Your task to perform on an android device: Search for Italian restaurants on Maps Image 0: 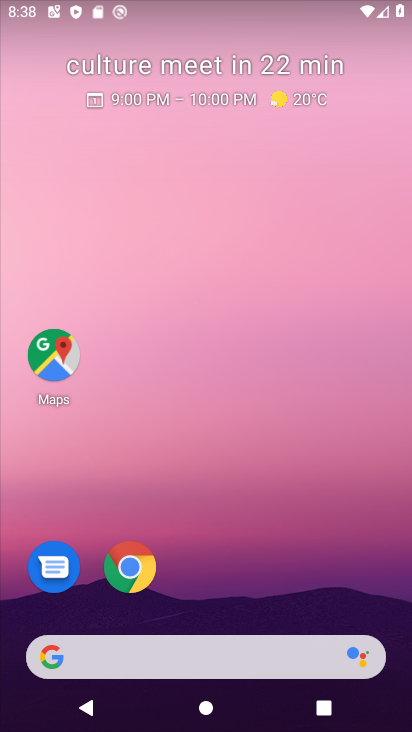
Step 0: click (48, 354)
Your task to perform on an android device: Search for Italian restaurants on Maps Image 1: 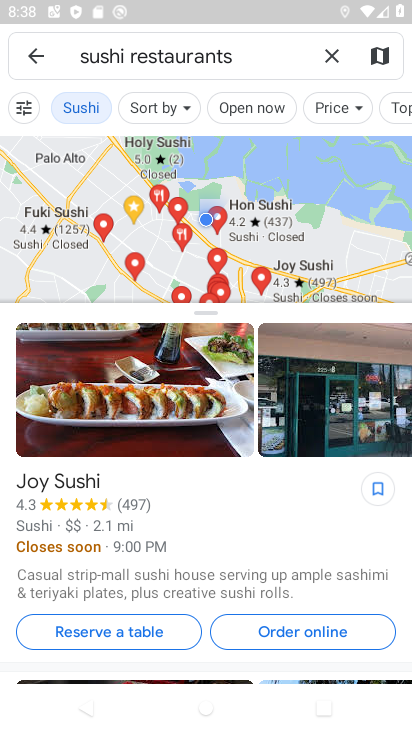
Step 1: click (334, 48)
Your task to perform on an android device: Search for Italian restaurants on Maps Image 2: 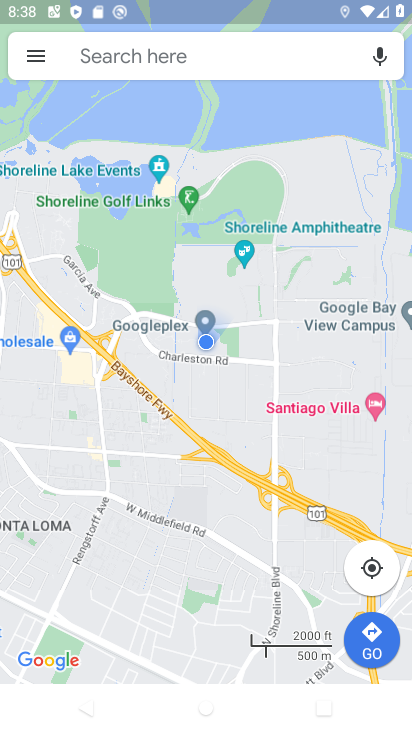
Step 2: click (137, 46)
Your task to perform on an android device: Search for Italian restaurants on Maps Image 3: 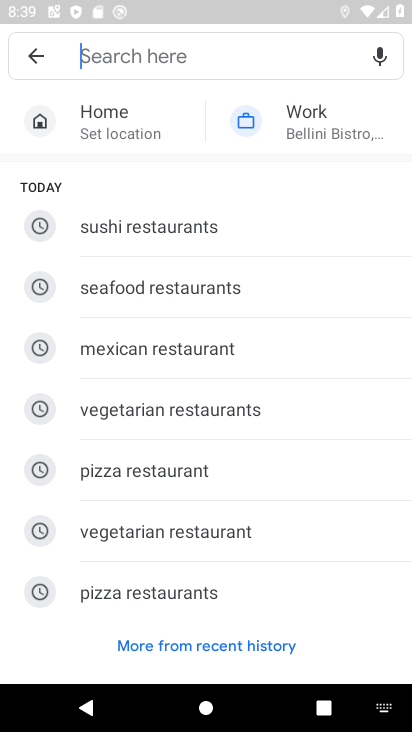
Step 3: type "italian restaurant"
Your task to perform on an android device: Search for Italian restaurants on Maps Image 4: 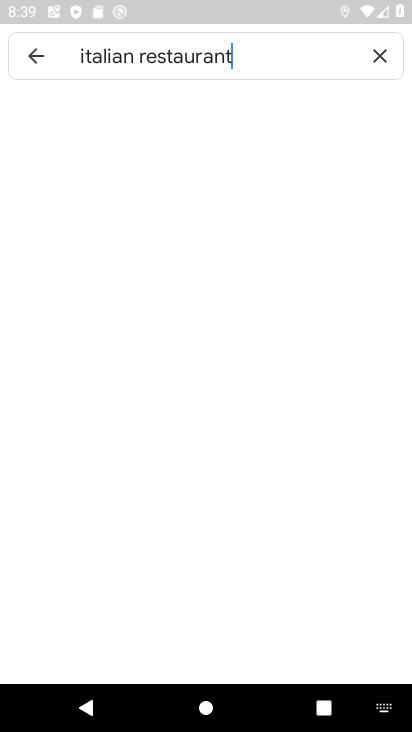
Step 4: type ""
Your task to perform on an android device: Search for Italian restaurants on Maps Image 5: 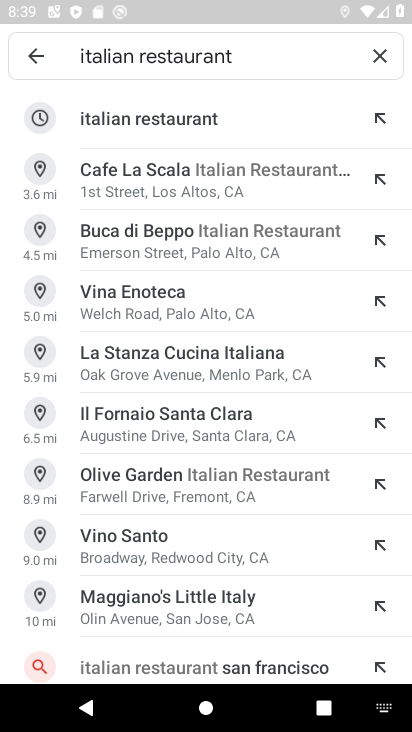
Step 5: click (212, 122)
Your task to perform on an android device: Search for Italian restaurants on Maps Image 6: 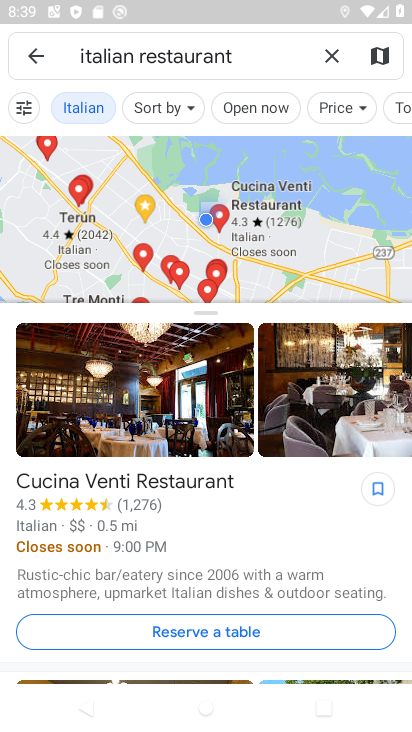
Step 6: task complete